Your task to perform on an android device: turn on translation in the chrome app Image 0: 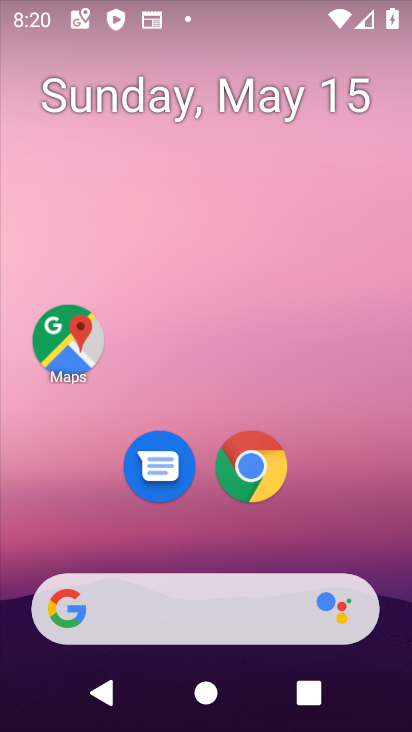
Step 0: click (236, 489)
Your task to perform on an android device: turn on translation in the chrome app Image 1: 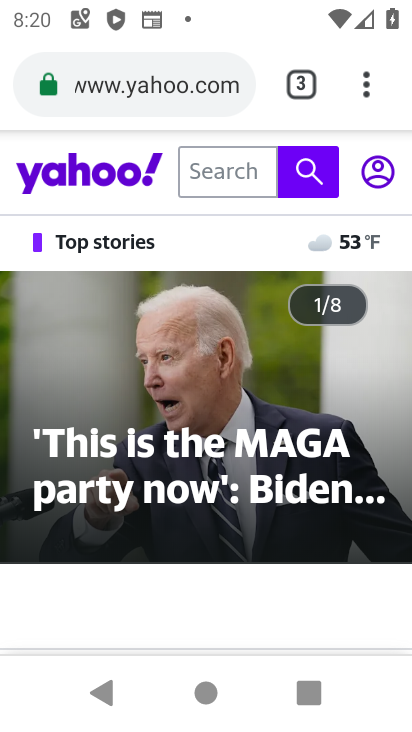
Step 1: click (366, 98)
Your task to perform on an android device: turn on translation in the chrome app Image 2: 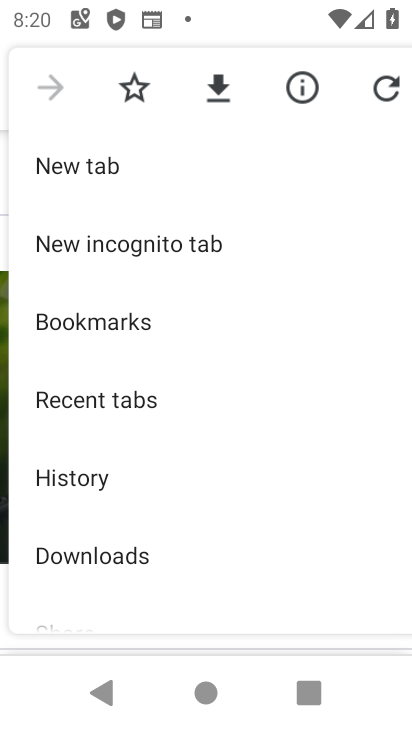
Step 2: drag from (246, 526) to (244, 47)
Your task to perform on an android device: turn on translation in the chrome app Image 3: 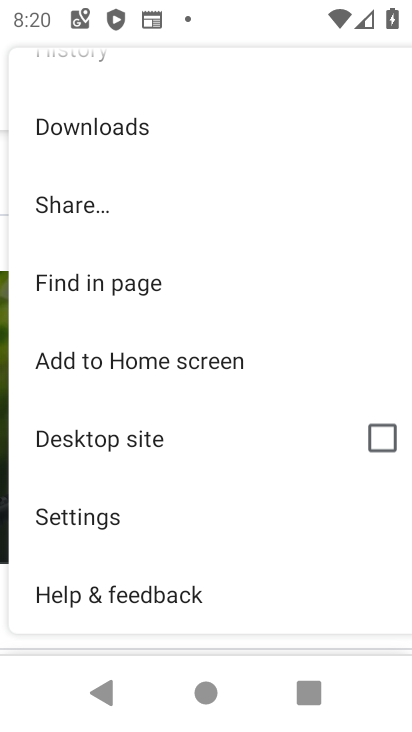
Step 3: click (93, 515)
Your task to perform on an android device: turn on translation in the chrome app Image 4: 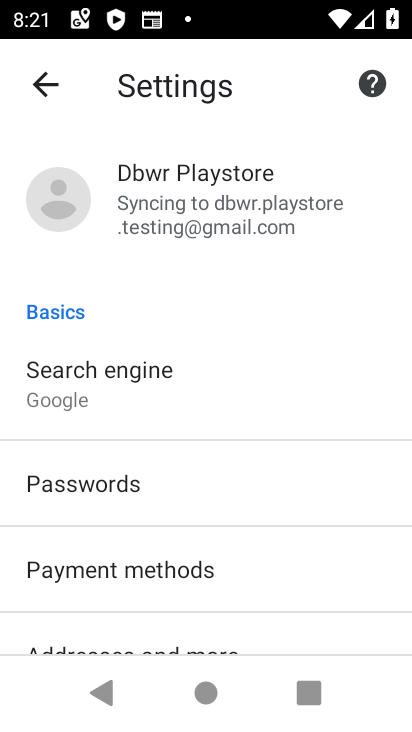
Step 4: drag from (163, 599) to (172, 185)
Your task to perform on an android device: turn on translation in the chrome app Image 5: 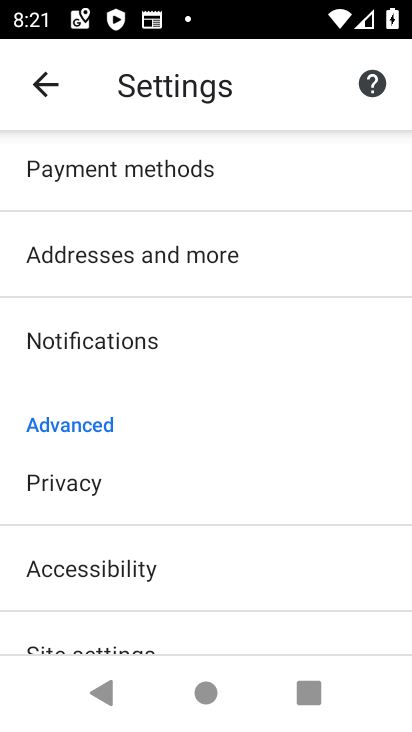
Step 5: drag from (149, 443) to (135, 131)
Your task to perform on an android device: turn on translation in the chrome app Image 6: 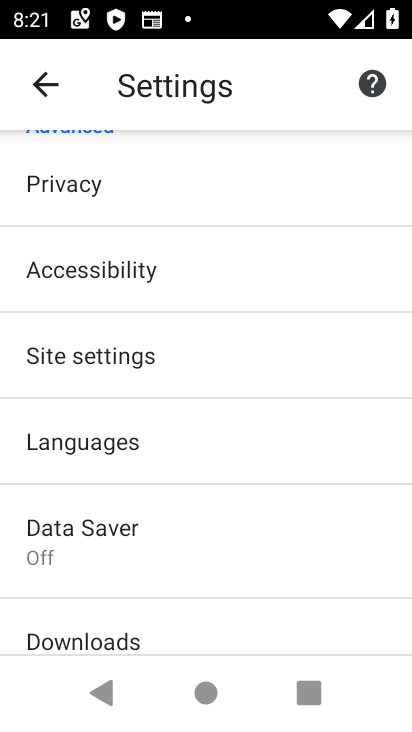
Step 6: click (143, 447)
Your task to perform on an android device: turn on translation in the chrome app Image 7: 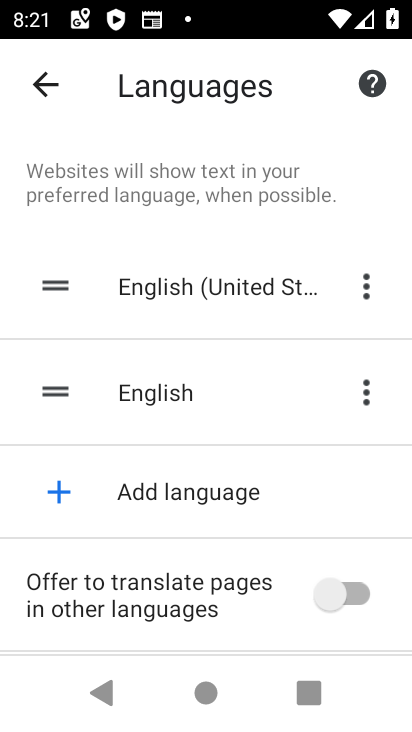
Step 7: click (365, 587)
Your task to perform on an android device: turn on translation in the chrome app Image 8: 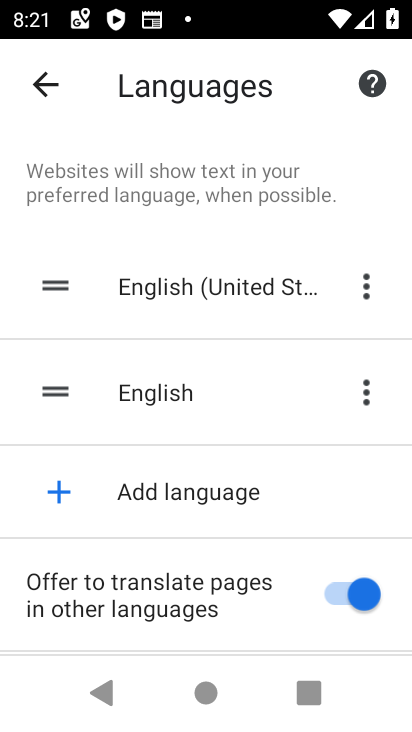
Step 8: task complete